Your task to perform on an android device: What's the latest video from GameSpot? Image 0: 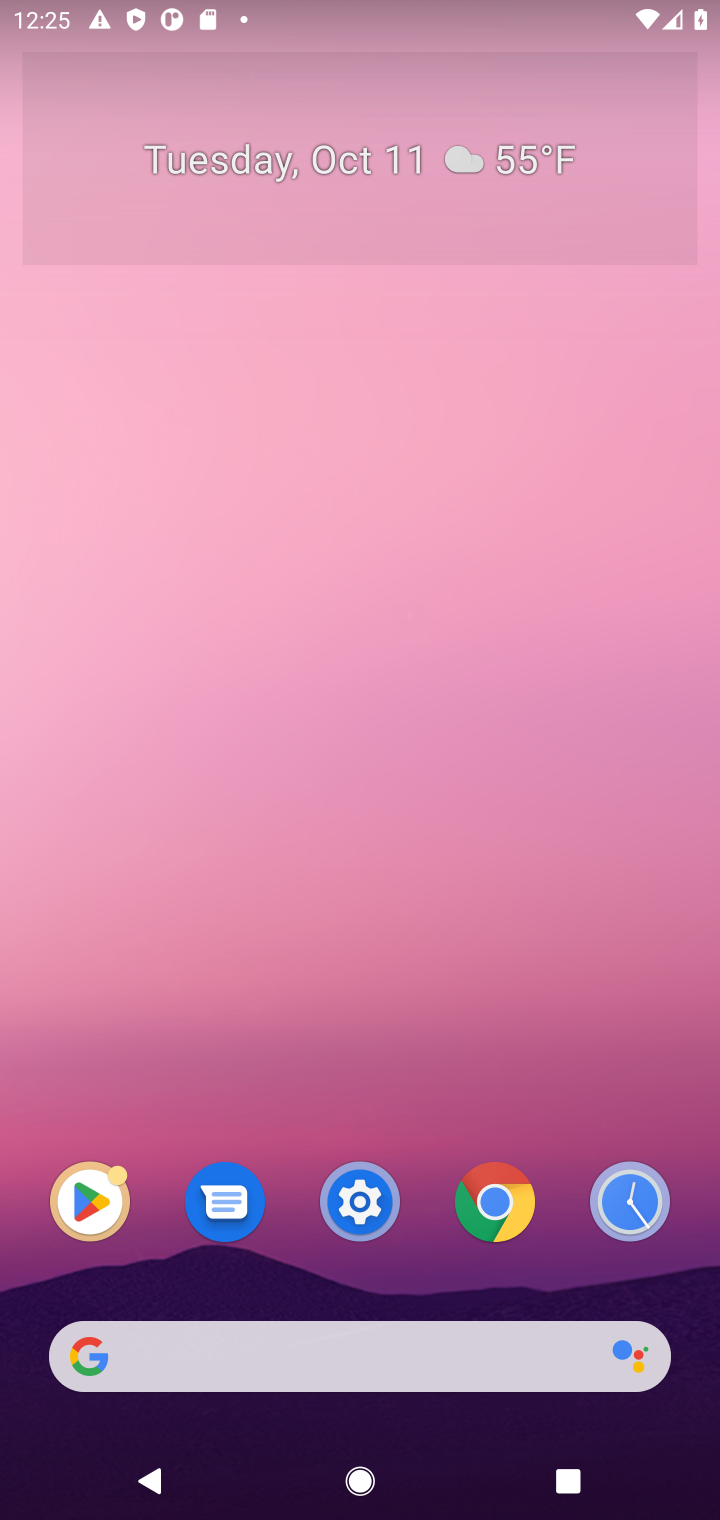
Step 0: click (72, 1347)
Your task to perform on an android device: What's the latest video from GameSpot? Image 1: 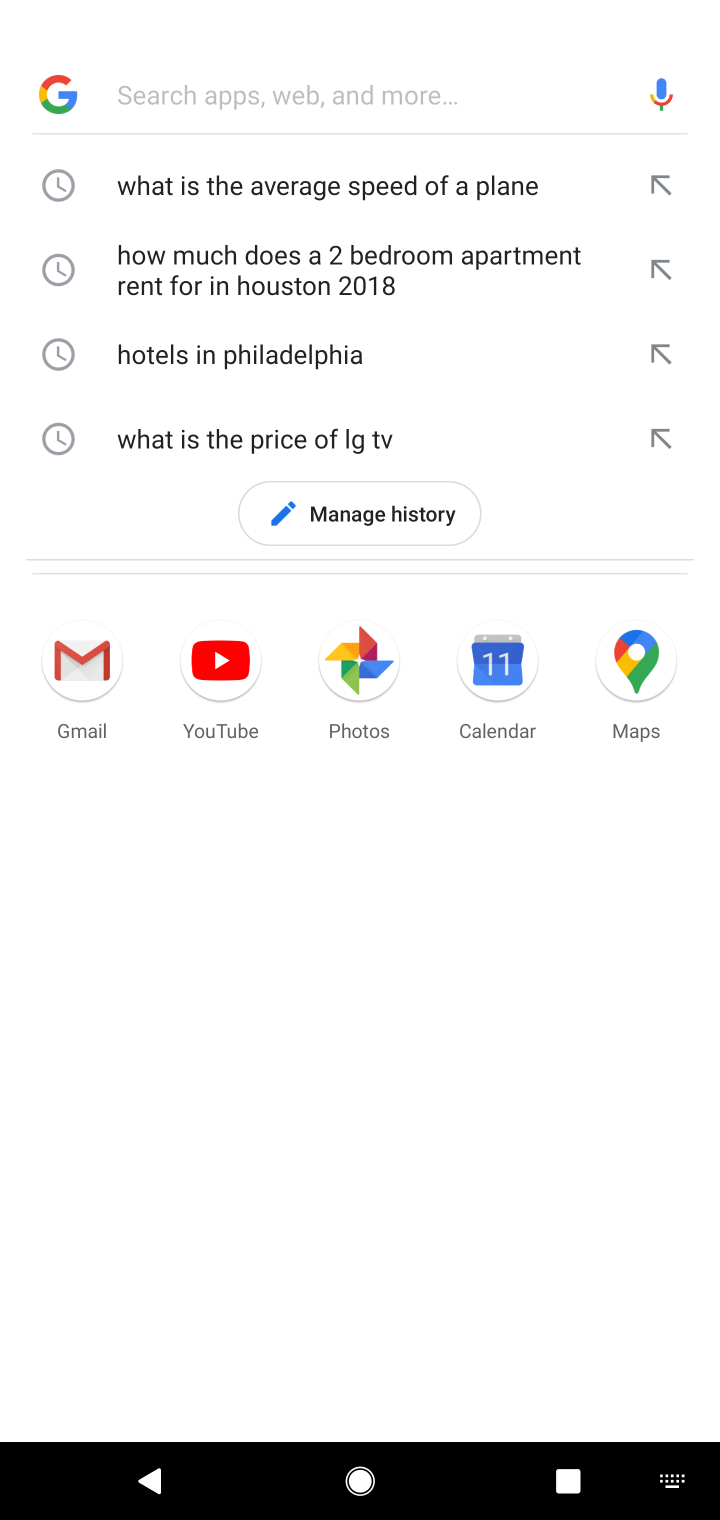
Step 1: click (221, 89)
Your task to perform on an android device: What's the latest video from GameSpot? Image 2: 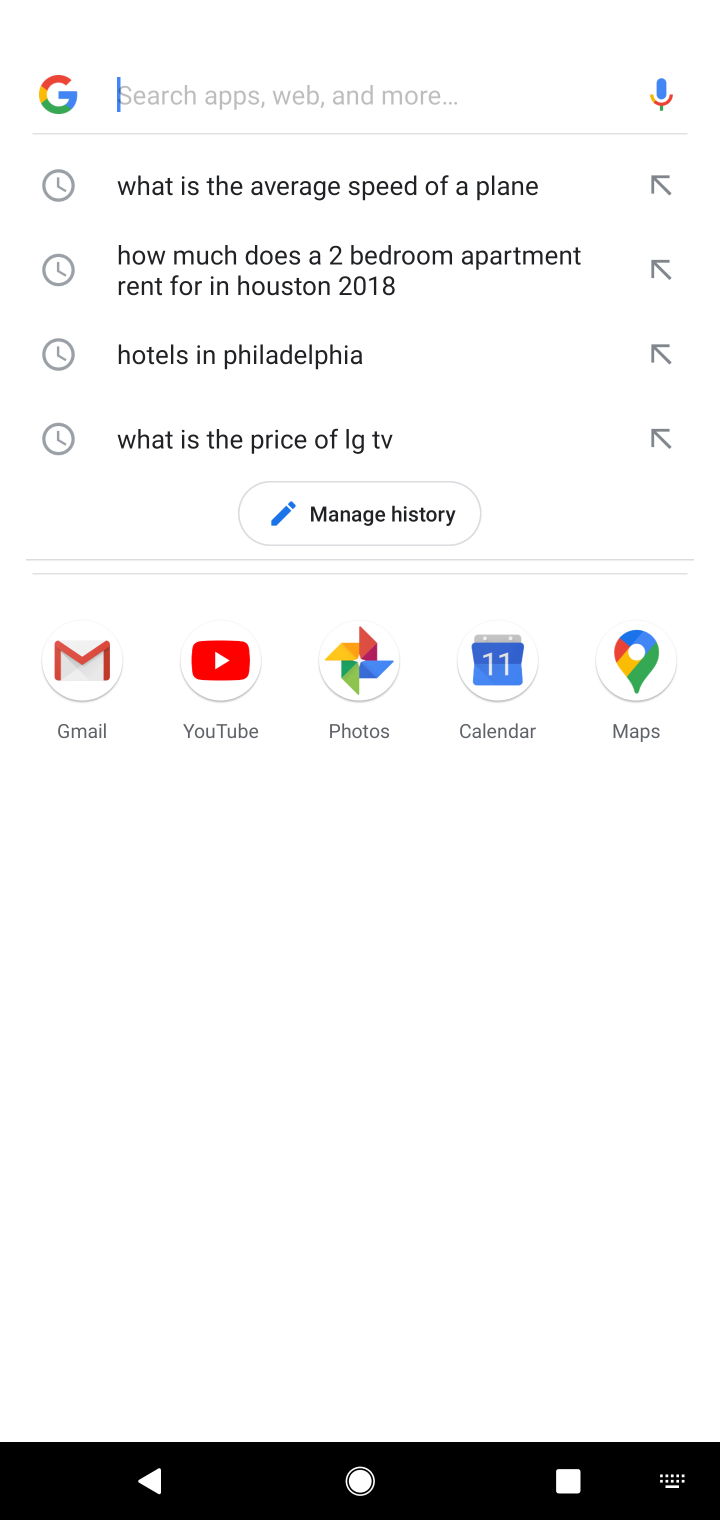
Step 2: type "What's the latest video from GameSpot?"
Your task to perform on an android device: What's the latest video from GameSpot? Image 3: 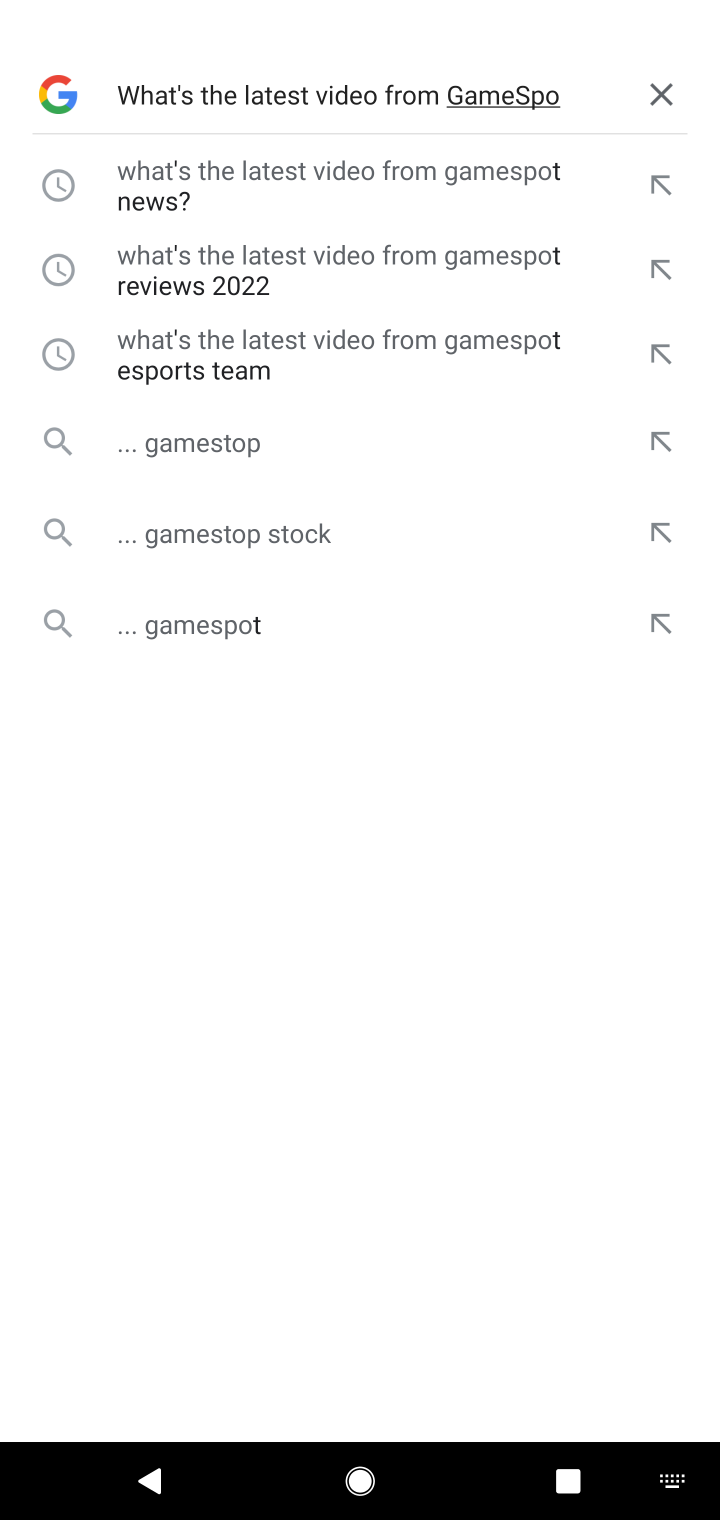
Step 3: click (364, 176)
Your task to perform on an android device: What's the latest video from GameSpot? Image 4: 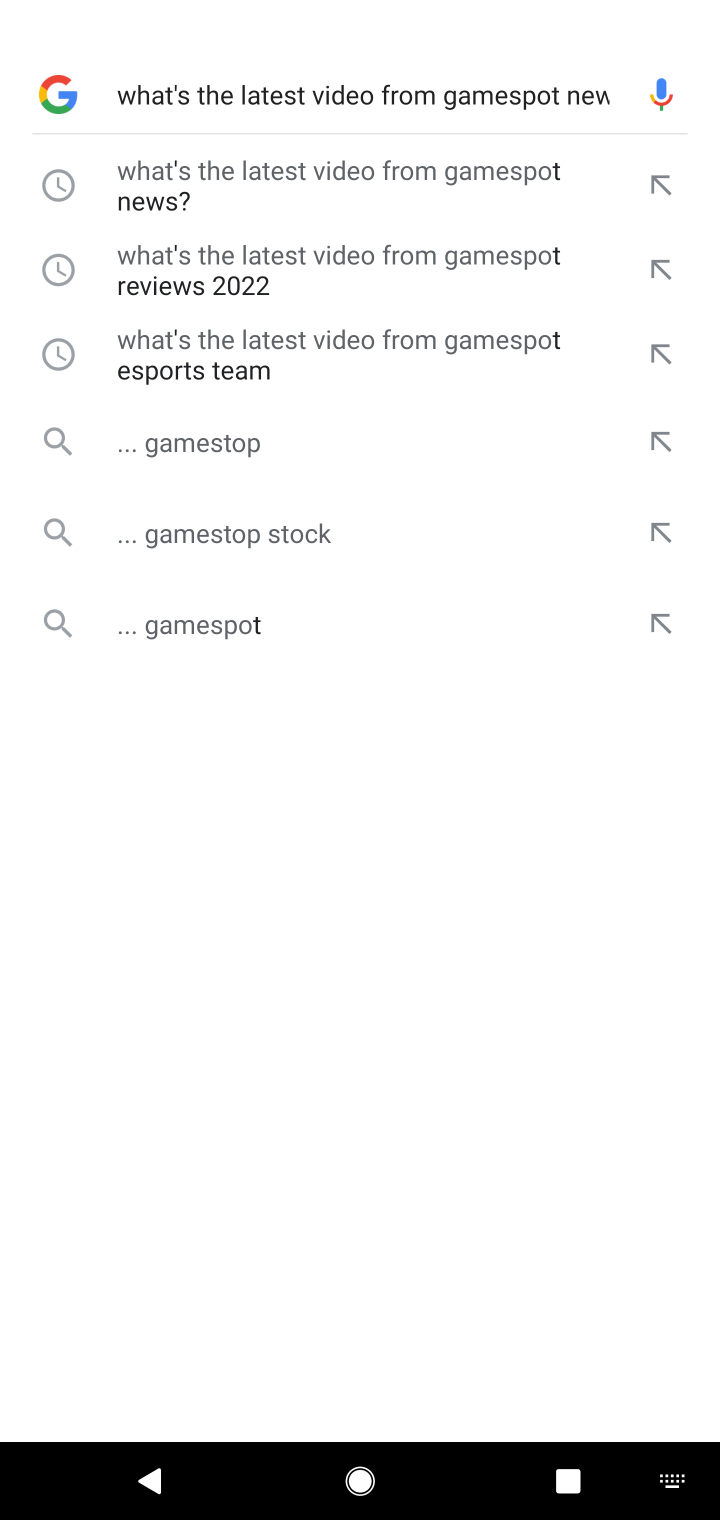
Step 4: task complete